Your task to perform on an android device: Search for vegetarian restaurants on Maps Image 0: 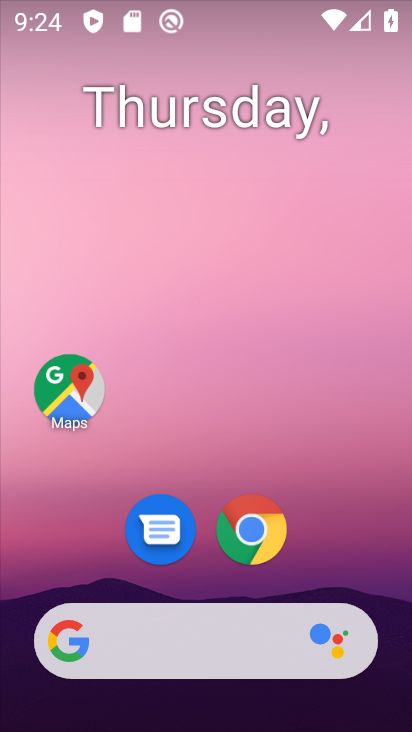
Step 0: click (68, 391)
Your task to perform on an android device: Search for vegetarian restaurants on Maps Image 1: 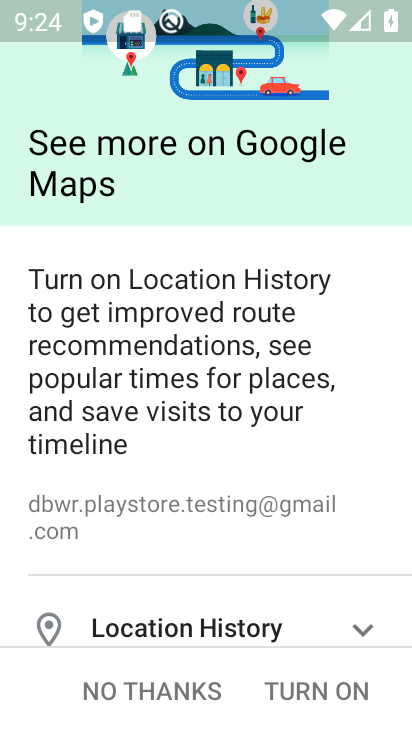
Step 1: click (182, 696)
Your task to perform on an android device: Search for vegetarian restaurants on Maps Image 2: 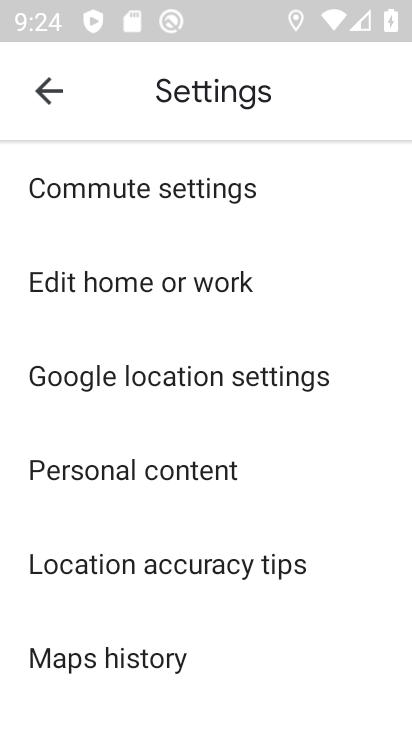
Step 2: click (50, 94)
Your task to perform on an android device: Search for vegetarian restaurants on Maps Image 3: 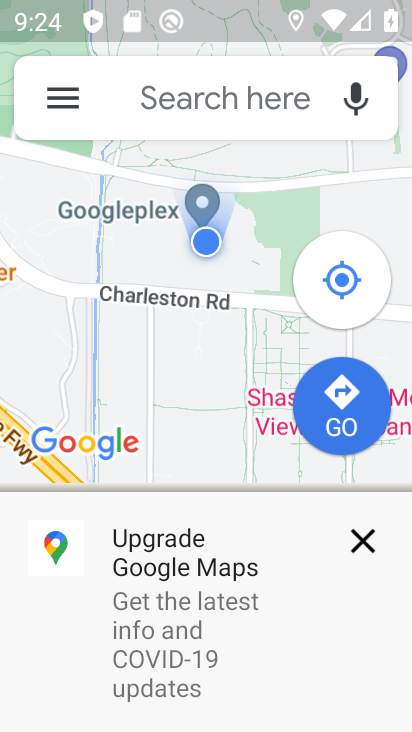
Step 3: click (155, 91)
Your task to perform on an android device: Search for vegetarian restaurants on Maps Image 4: 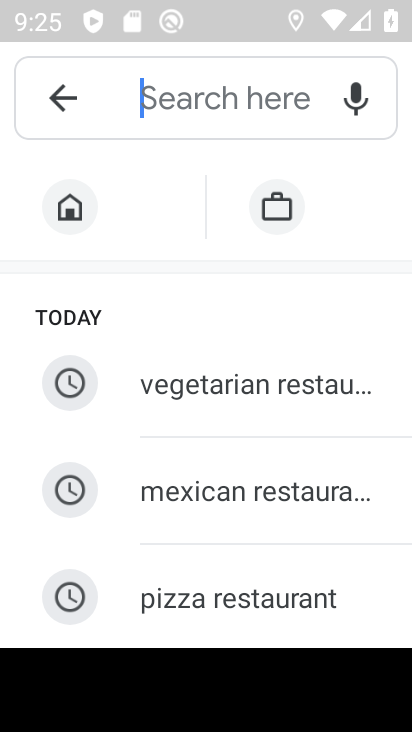
Step 4: type "vegetarian restaurants"
Your task to perform on an android device: Search for vegetarian restaurants on Maps Image 5: 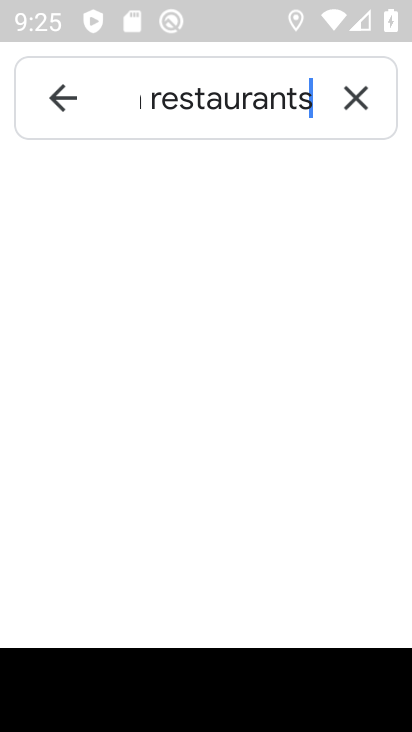
Step 5: type ""
Your task to perform on an android device: Search for vegetarian restaurants on Maps Image 6: 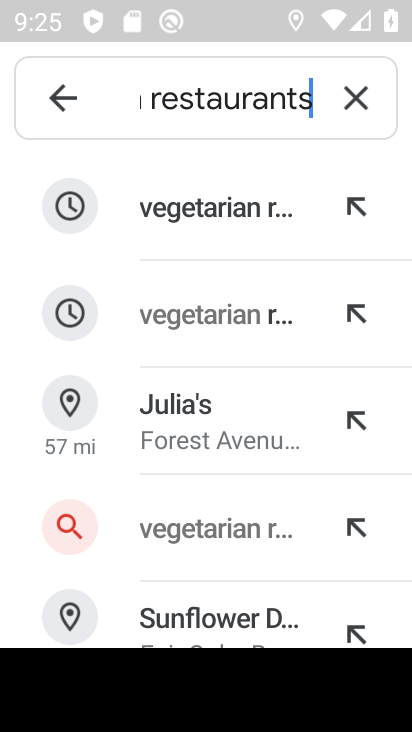
Step 6: click (237, 218)
Your task to perform on an android device: Search for vegetarian restaurants on Maps Image 7: 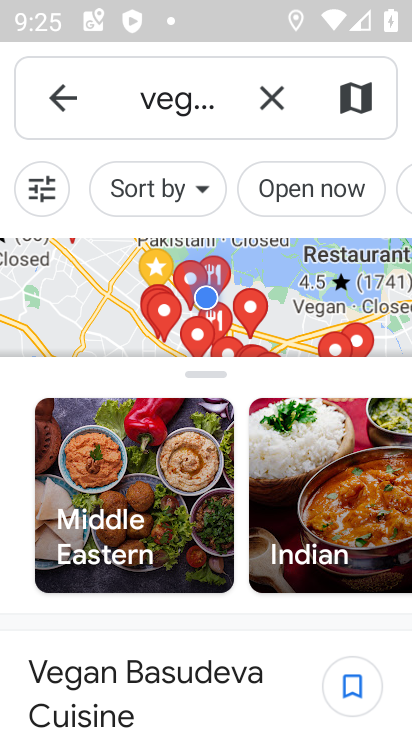
Step 7: task complete